Your task to perform on an android device: Open Yahoo.com Image 0: 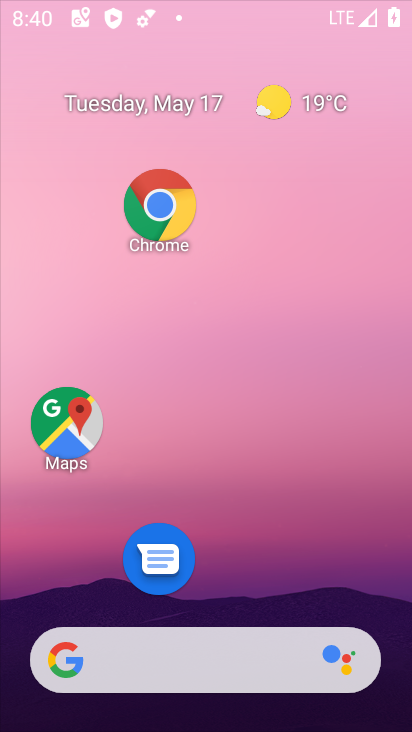
Step 0: drag from (229, 570) to (167, 10)
Your task to perform on an android device: Open Yahoo.com Image 1: 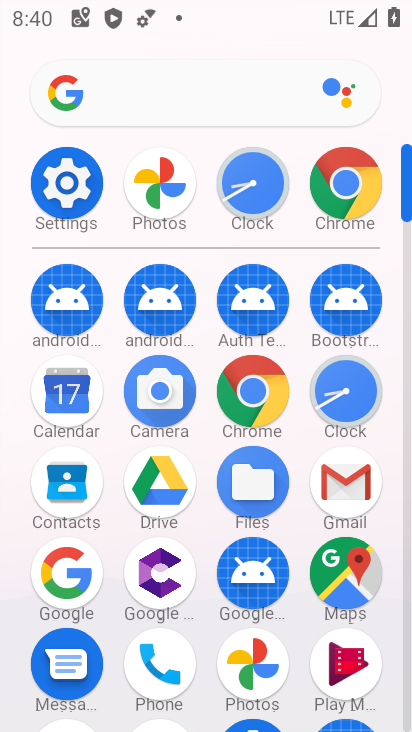
Step 1: click (144, 97)
Your task to perform on an android device: Open Yahoo.com Image 2: 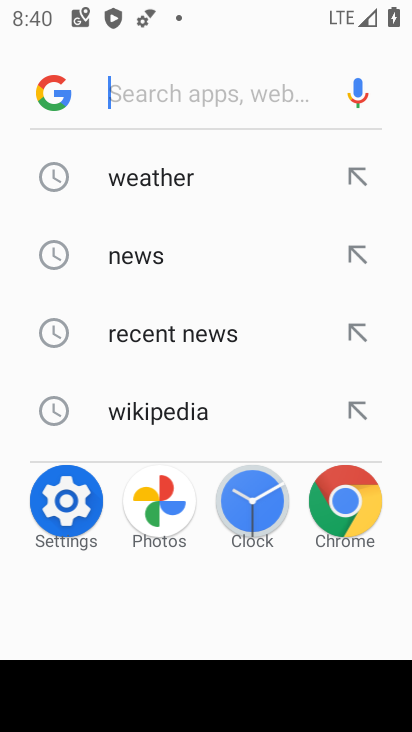
Step 2: type "yahoo"
Your task to perform on an android device: Open Yahoo.com Image 3: 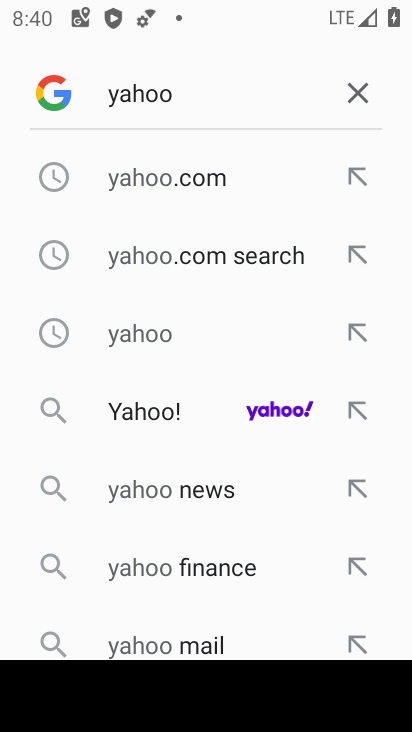
Step 3: click (240, 171)
Your task to perform on an android device: Open Yahoo.com Image 4: 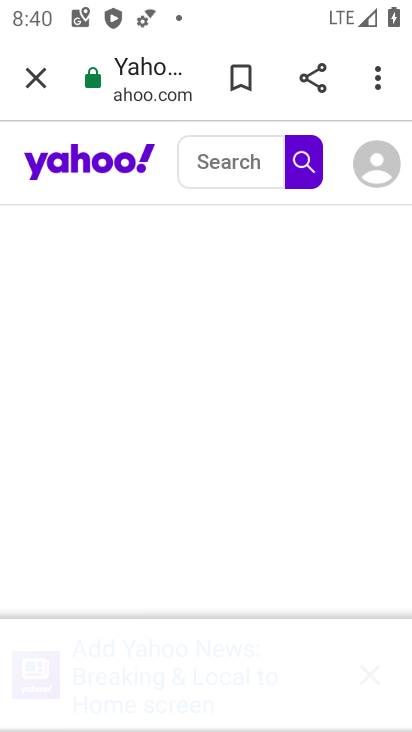
Step 4: task complete